Your task to perform on an android device: Open Reddit.com Image 0: 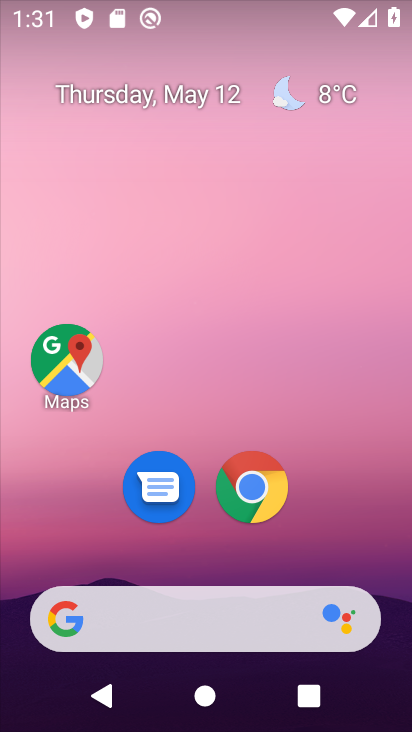
Step 0: click (255, 492)
Your task to perform on an android device: Open Reddit.com Image 1: 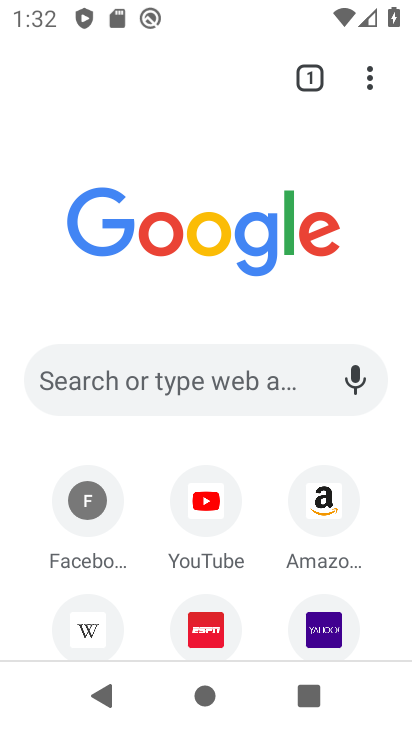
Step 1: click (198, 373)
Your task to perform on an android device: Open Reddit.com Image 2: 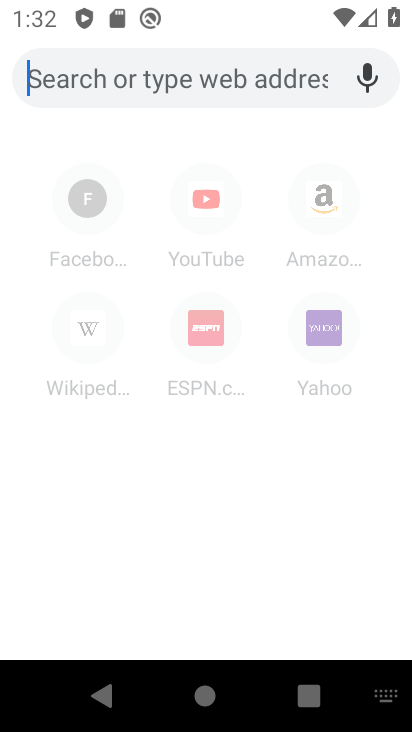
Step 2: type "Reddit.com"
Your task to perform on an android device: Open Reddit.com Image 3: 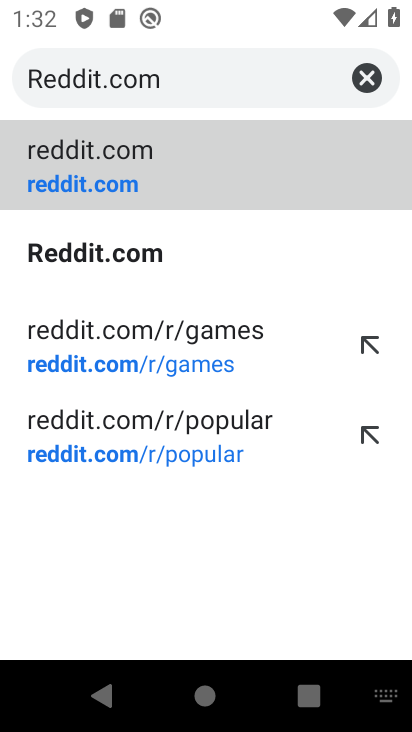
Step 3: click (116, 160)
Your task to perform on an android device: Open Reddit.com Image 4: 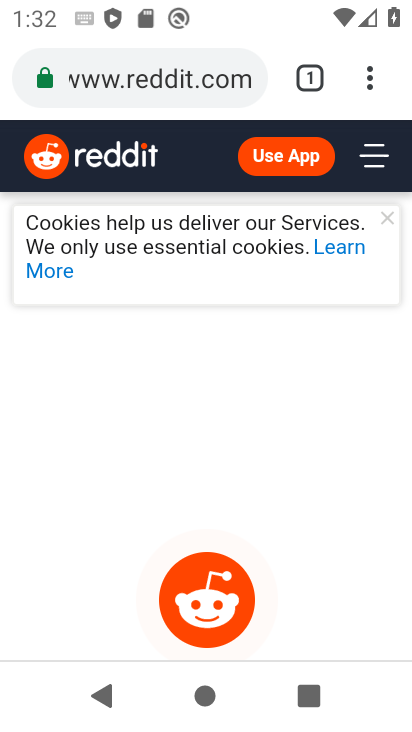
Step 4: task complete